Your task to perform on an android device: Open Google Image 0: 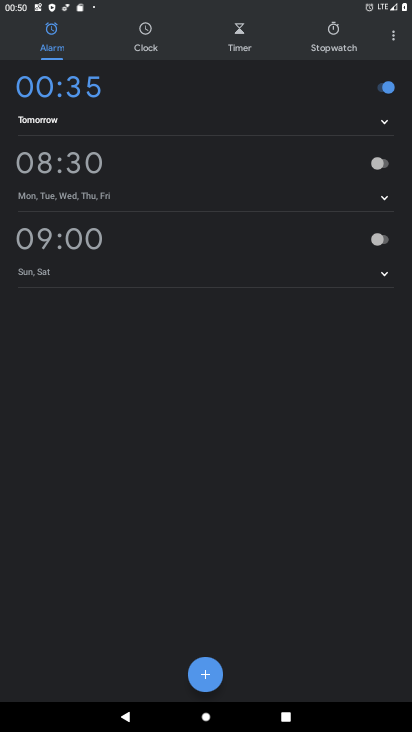
Step 0: press home button
Your task to perform on an android device: Open Google Image 1: 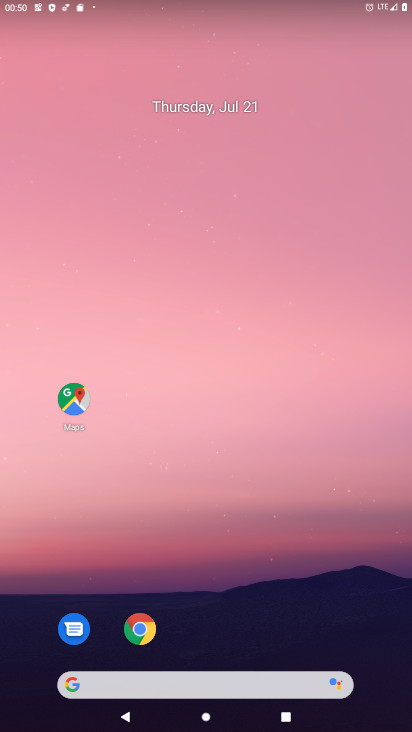
Step 1: drag from (261, 346) to (251, 113)
Your task to perform on an android device: Open Google Image 2: 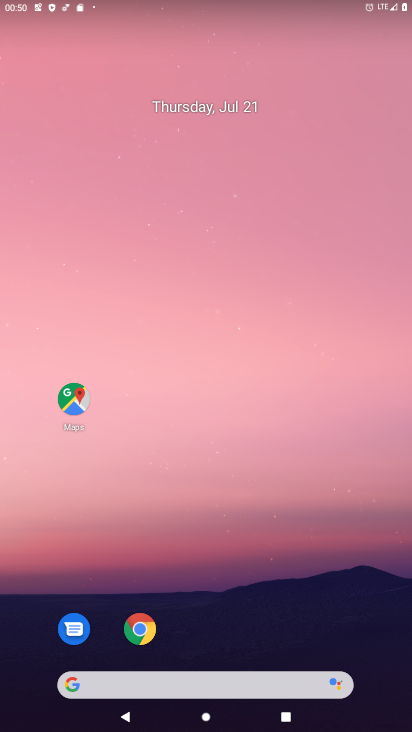
Step 2: drag from (294, 402) to (277, 134)
Your task to perform on an android device: Open Google Image 3: 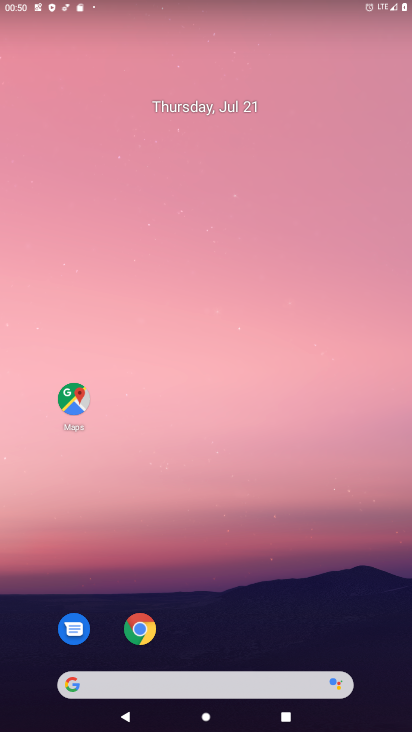
Step 3: drag from (332, 623) to (293, 50)
Your task to perform on an android device: Open Google Image 4: 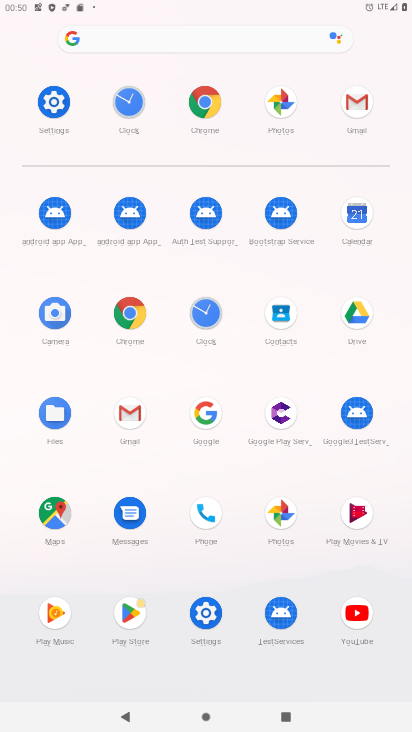
Step 4: click (208, 422)
Your task to perform on an android device: Open Google Image 5: 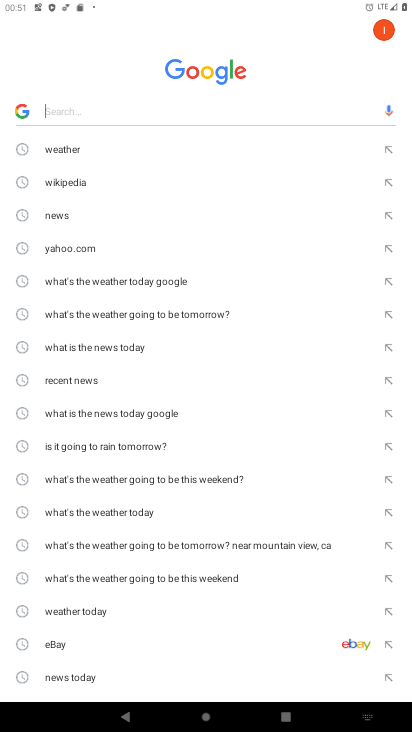
Step 5: task complete